Your task to perform on an android device: Show me the alarms in the clock app Image 0: 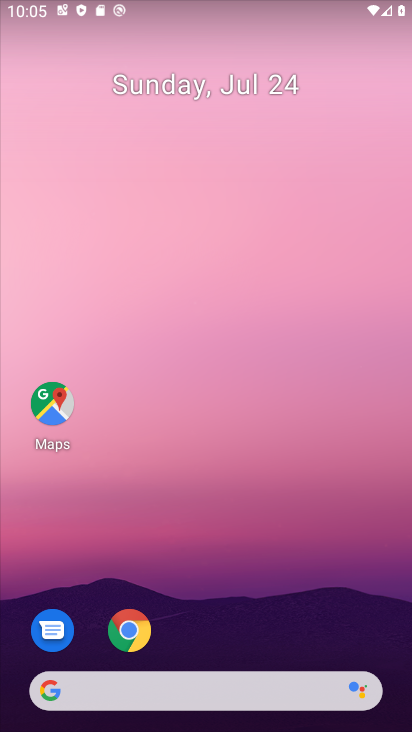
Step 0: drag from (239, 638) to (207, 218)
Your task to perform on an android device: Show me the alarms in the clock app Image 1: 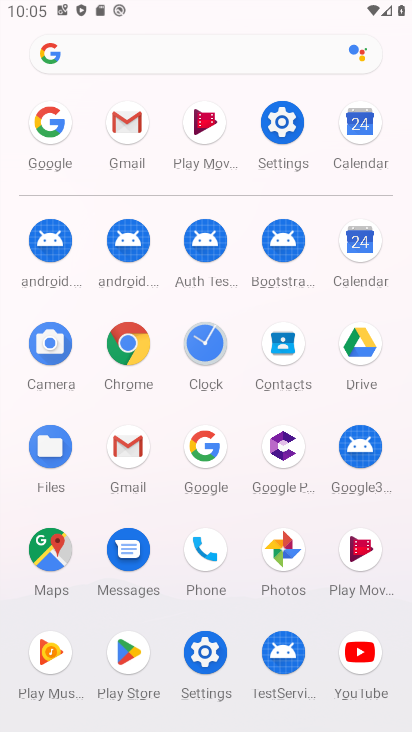
Step 1: click (186, 370)
Your task to perform on an android device: Show me the alarms in the clock app Image 2: 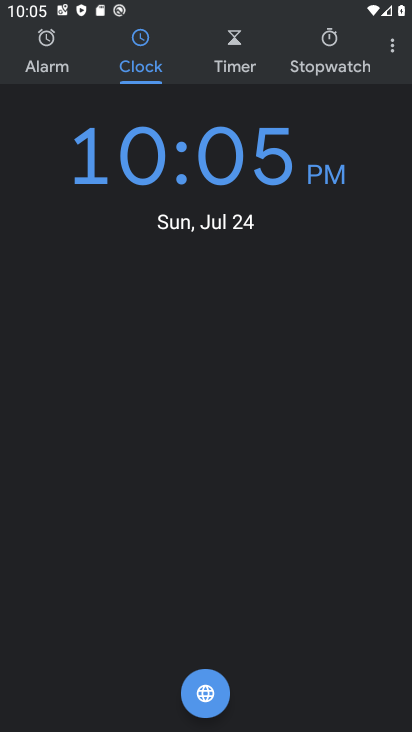
Step 2: click (391, 47)
Your task to perform on an android device: Show me the alarms in the clock app Image 3: 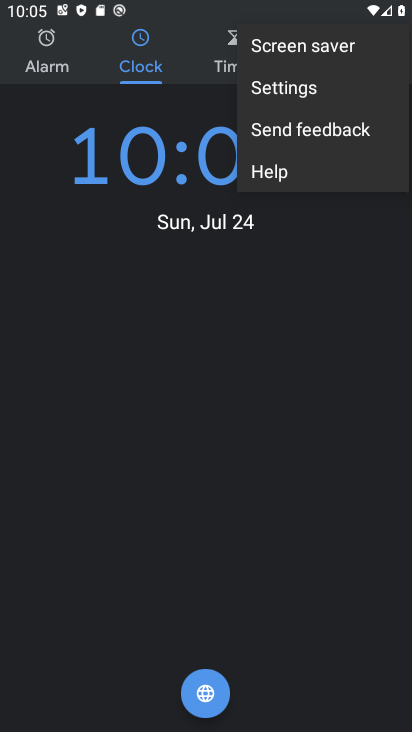
Step 3: click (323, 95)
Your task to perform on an android device: Show me the alarms in the clock app Image 4: 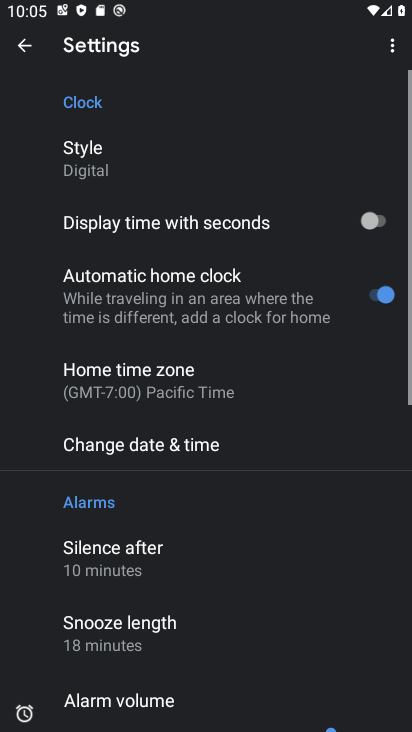
Step 4: click (31, 49)
Your task to perform on an android device: Show me the alarms in the clock app Image 5: 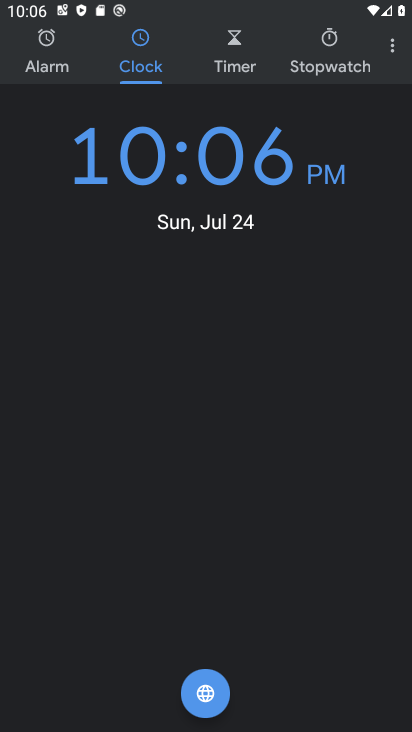
Step 5: click (31, 49)
Your task to perform on an android device: Show me the alarms in the clock app Image 6: 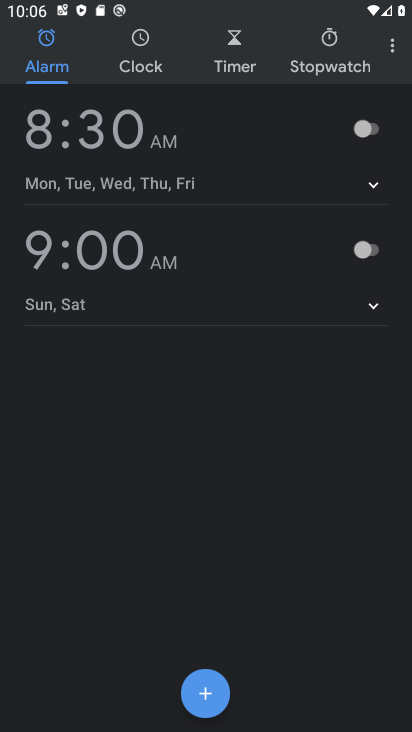
Step 6: task complete